Your task to perform on an android device: open wifi settings Image 0: 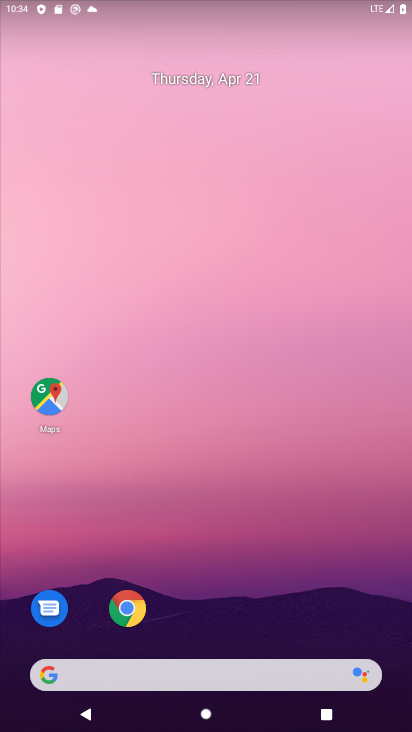
Step 0: drag from (228, 584) to (213, 151)
Your task to perform on an android device: open wifi settings Image 1: 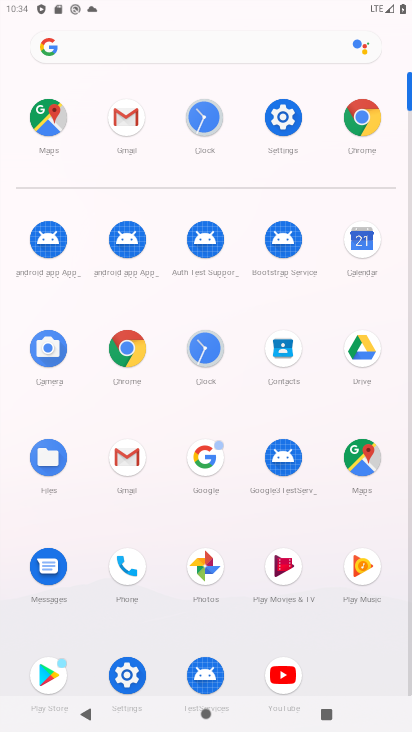
Step 1: click (279, 119)
Your task to perform on an android device: open wifi settings Image 2: 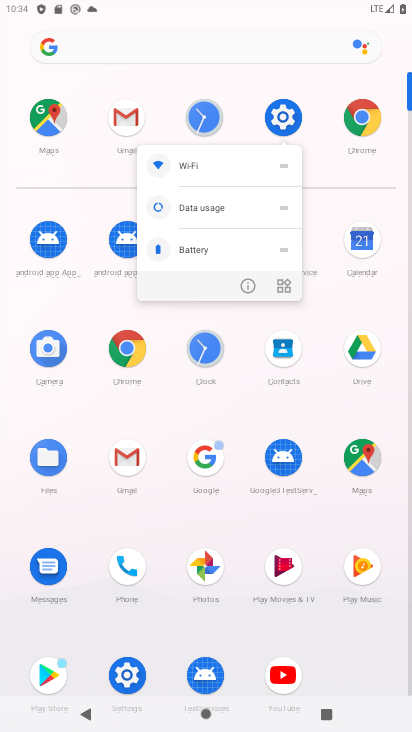
Step 2: click (196, 163)
Your task to perform on an android device: open wifi settings Image 3: 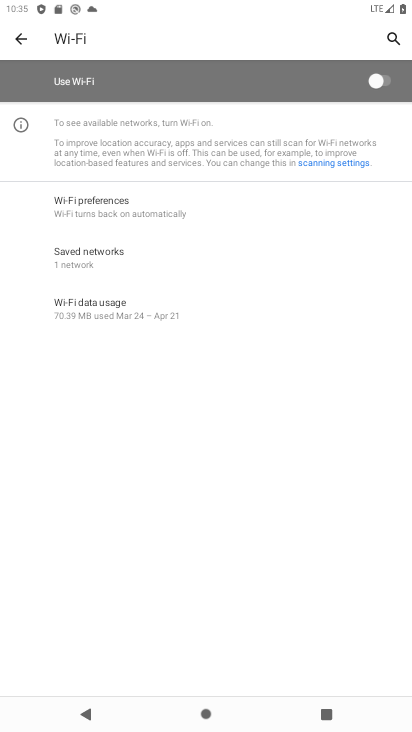
Step 3: task complete